Your task to perform on an android device: Go to Yahoo.com Image 0: 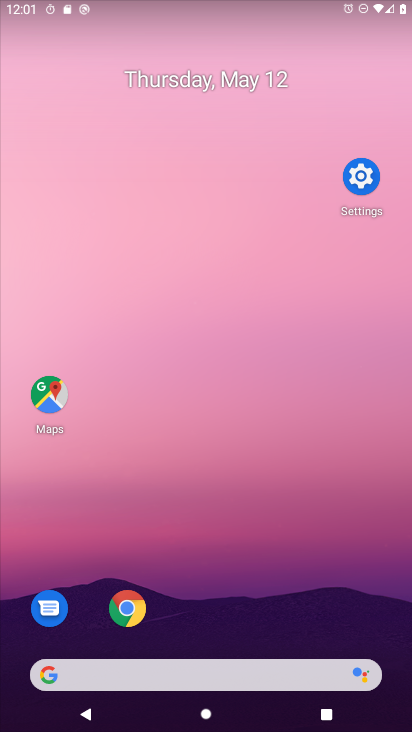
Step 0: drag from (277, 611) to (78, 6)
Your task to perform on an android device: Go to Yahoo.com Image 1: 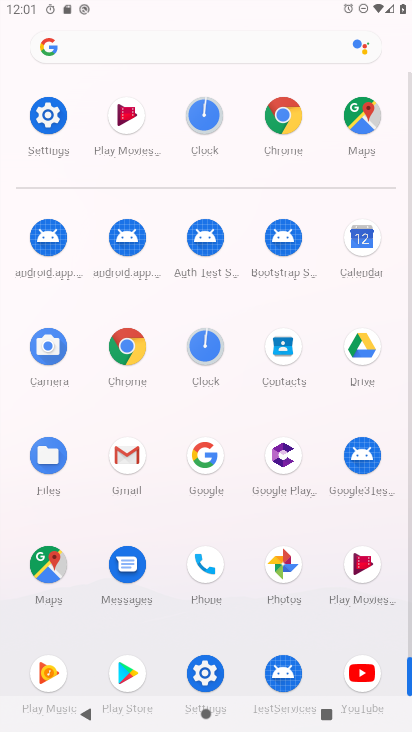
Step 1: click (283, 117)
Your task to perform on an android device: Go to Yahoo.com Image 2: 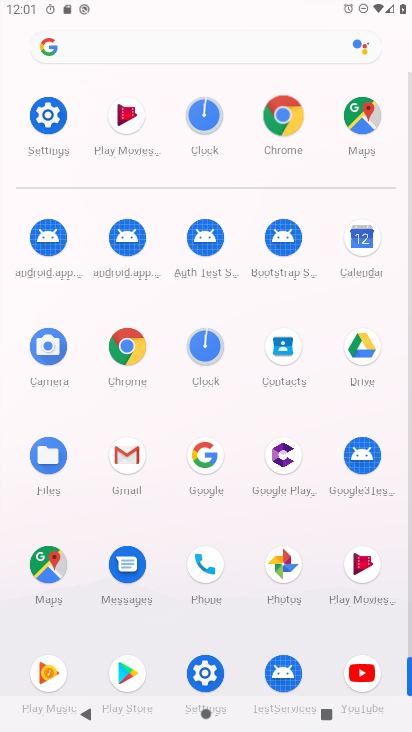
Step 2: click (283, 117)
Your task to perform on an android device: Go to Yahoo.com Image 3: 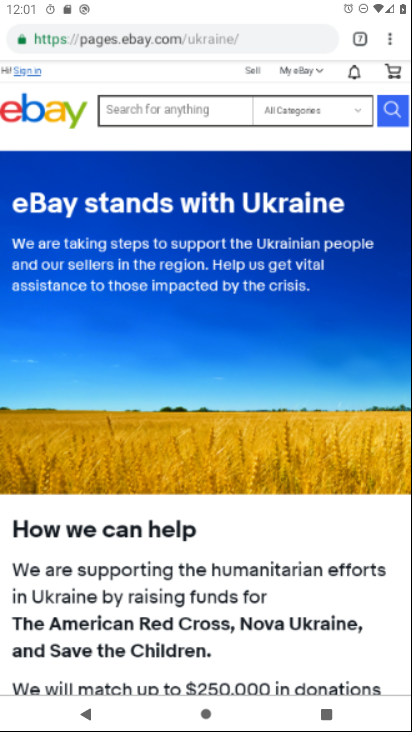
Step 3: click (284, 117)
Your task to perform on an android device: Go to Yahoo.com Image 4: 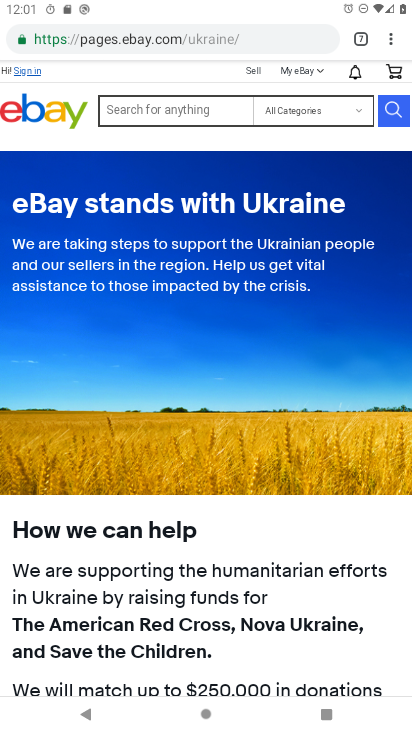
Step 4: drag from (387, 36) to (244, 73)
Your task to perform on an android device: Go to Yahoo.com Image 5: 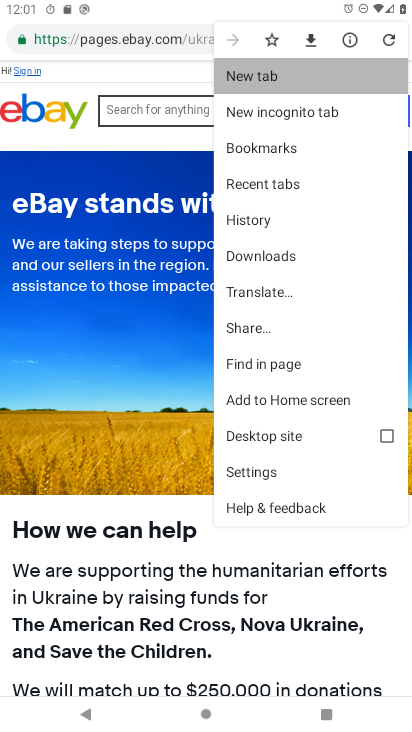
Step 5: click (243, 72)
Your task to perform on an android device: Go to Yahoo.com Image 6: 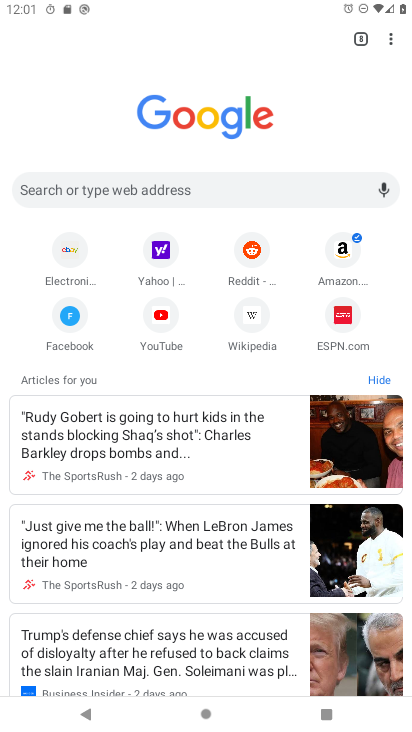
Step 6: click (160, 239)
Your task to perform on an android device: Go to Yahoo.com Image 7: 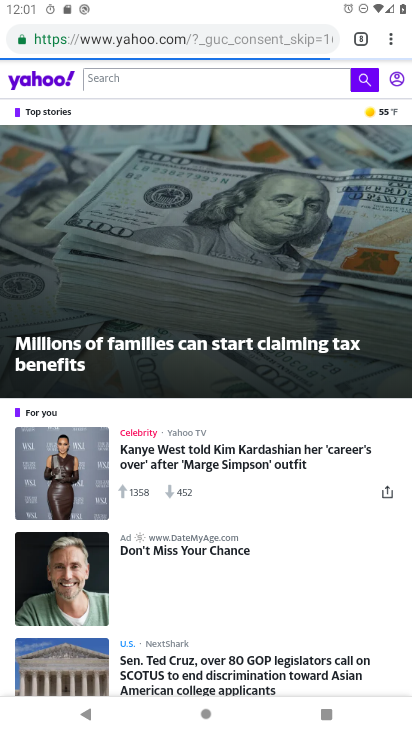
Step 7: task complete